Your task to perform on an android device: Open privacy settings Image 0: 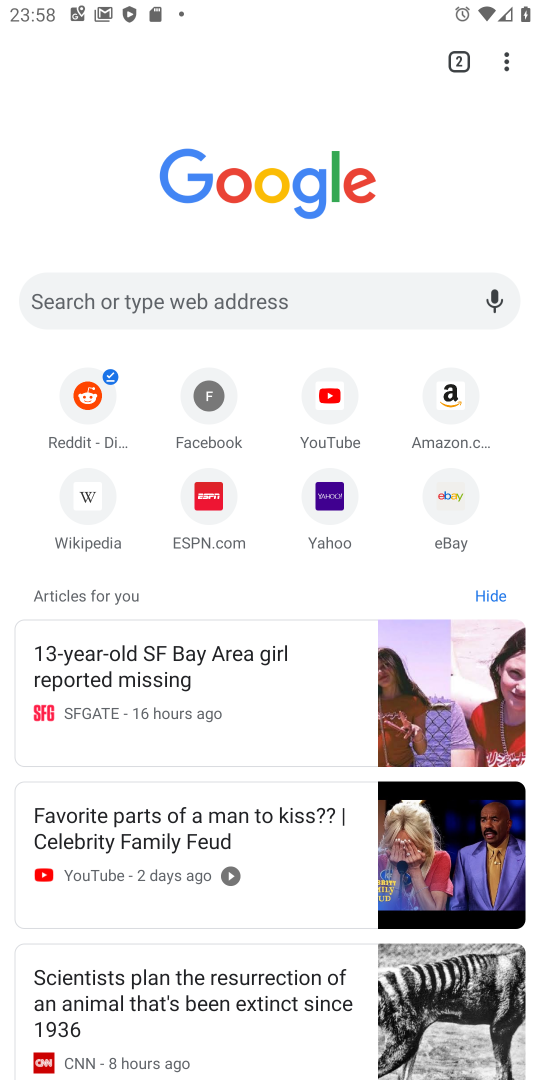
Step 0: press home button
Your task to perform on an android device: Open privacy settings Image 1: 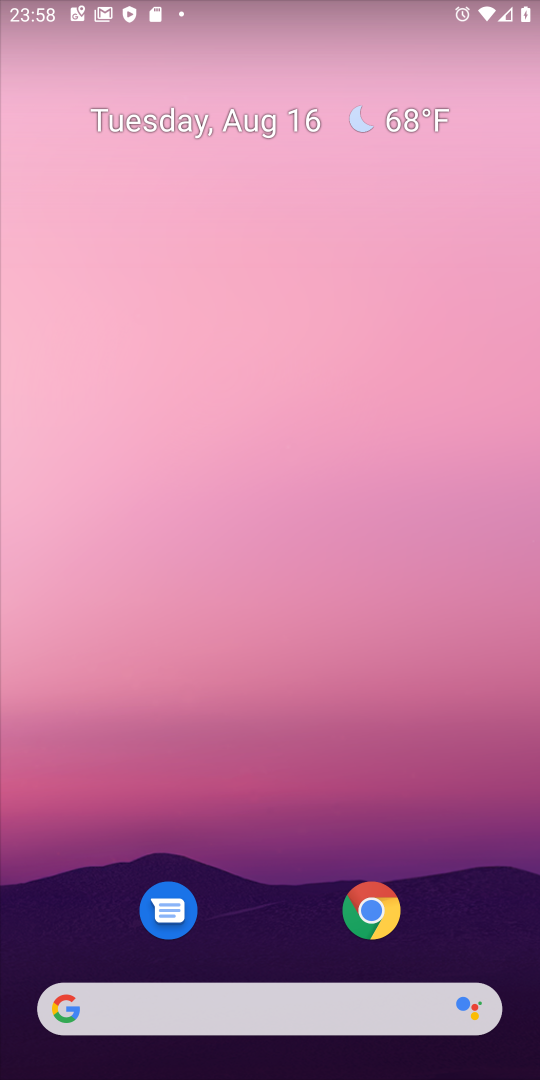
Step 1: drag from (241, 918) to (464, 0)
Your task to perform on an android device: Open privacy settings Image 2: 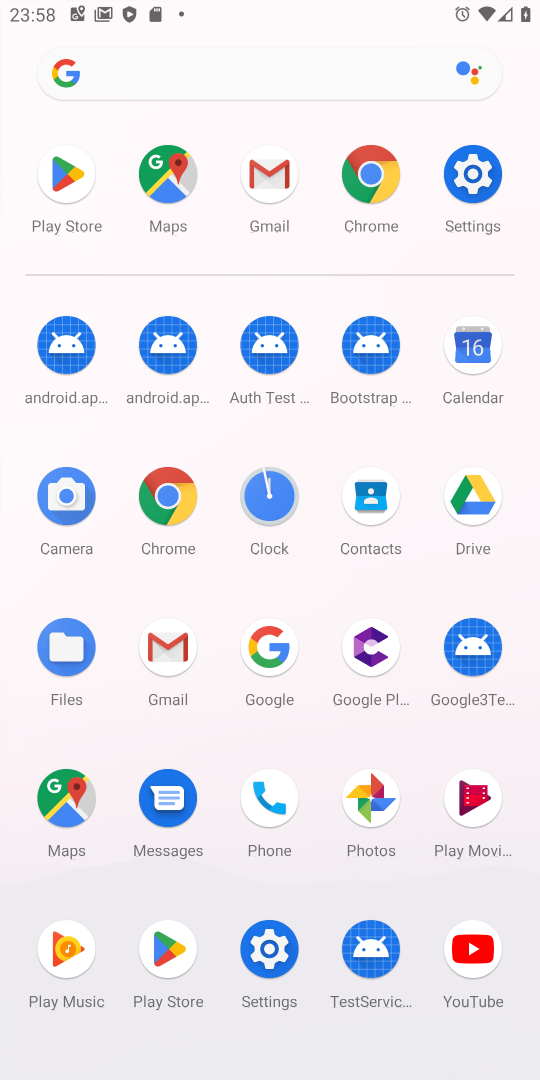
Step 2: click (466, 166)
Your task to perform on an android device: Open privacy settings Image 3: 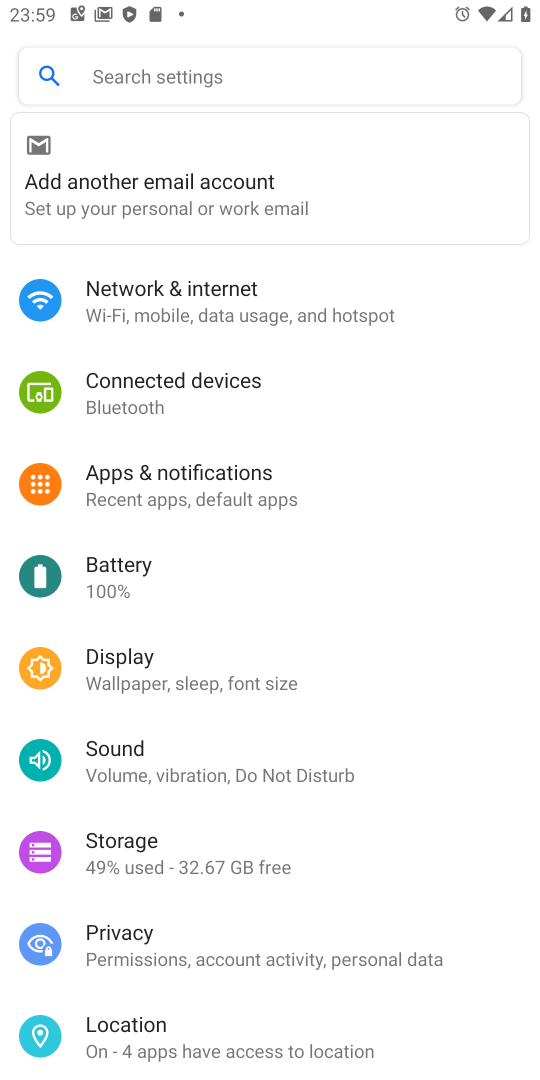
Step 3: drag from (418, 786) to (506, 102)
Your task to perform on an android device: Open privacy settings Image 4: 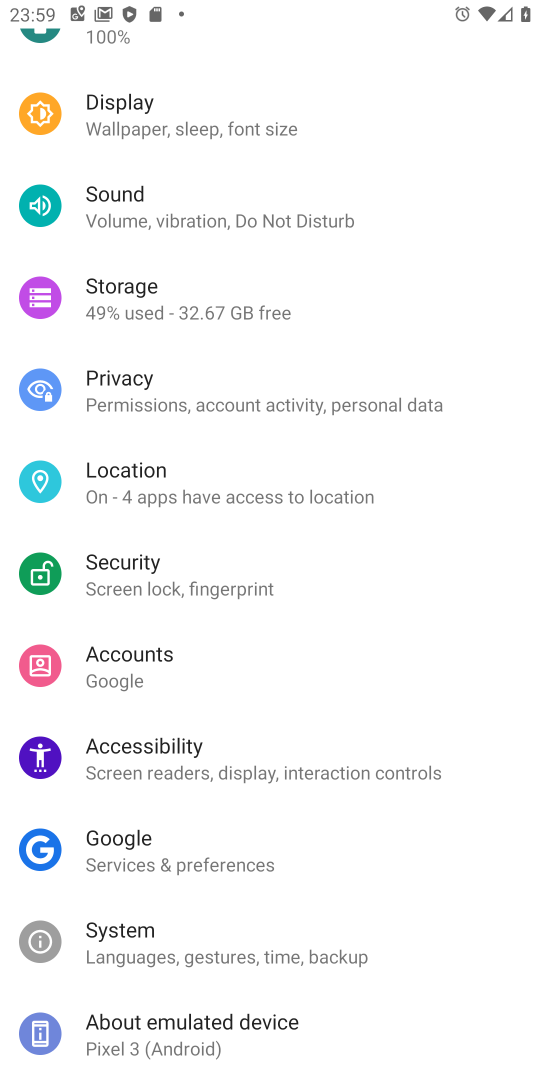
Step 4: click (166, 401)
Your task to perform on an android device: Open privacy settings Image 5: 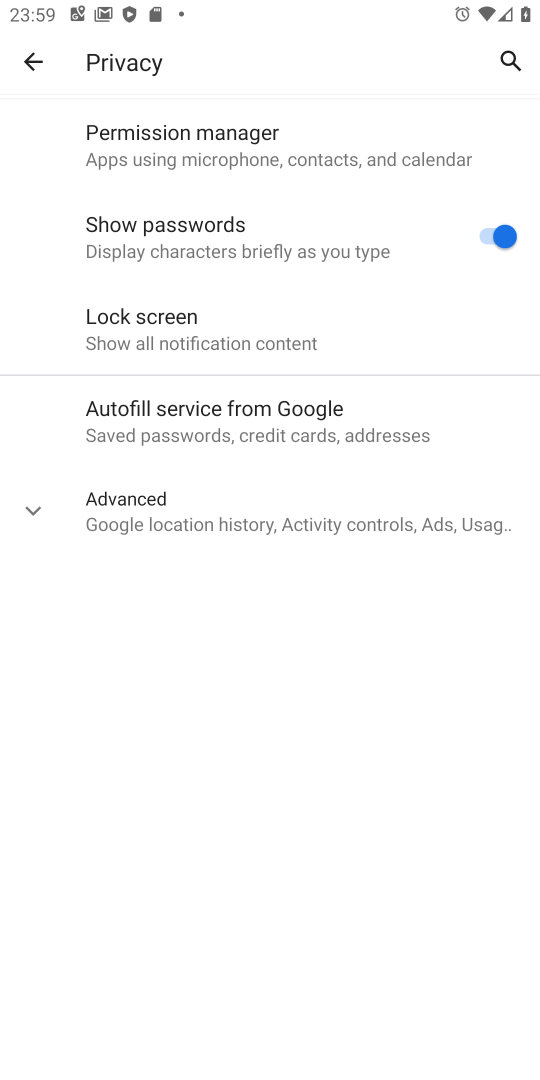
Step 5: task complete